Your task to perform on an android device: Open Google Maps Image 0: 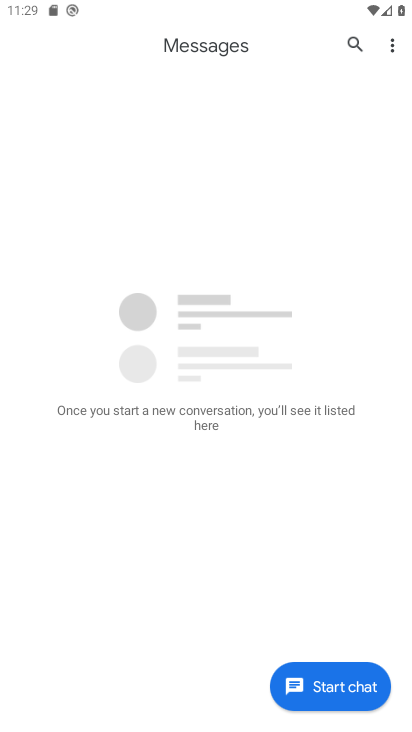
Step 0: press home button
Your task to perform on an android device: Open Google Maps Image 1: 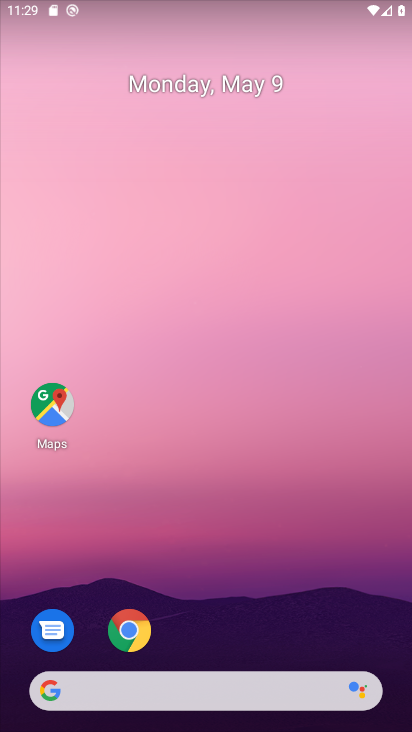
Step 1: click (51, 399)
Your task to perform on an android device: Open Google Maps Image 2: 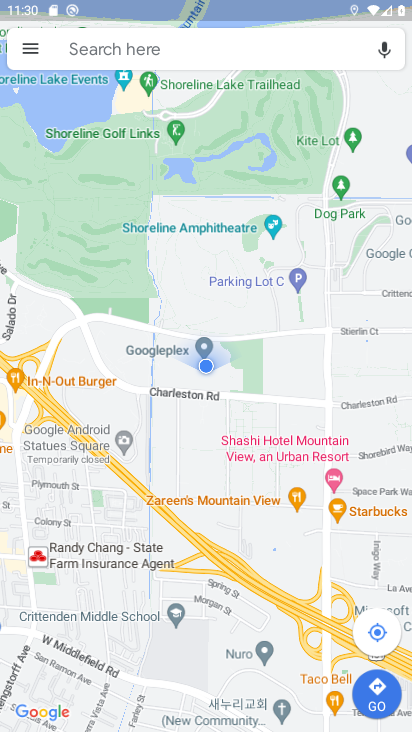
Step 2: task complete